Your task to perform on an android device: open app "Indeed Job Search" Image 0: 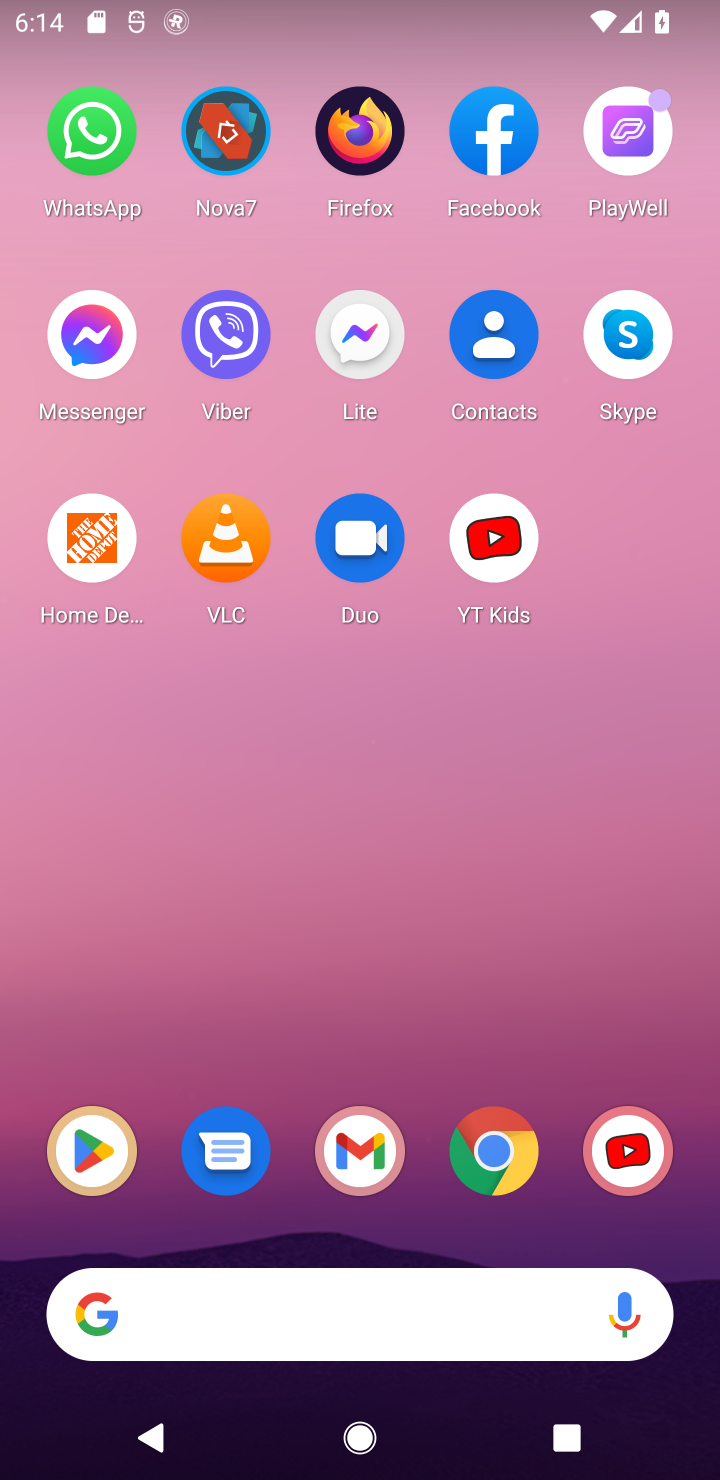
Step 0: press home button
Your task to perform on an android device: open app "Indeed Job Search" Image 1: 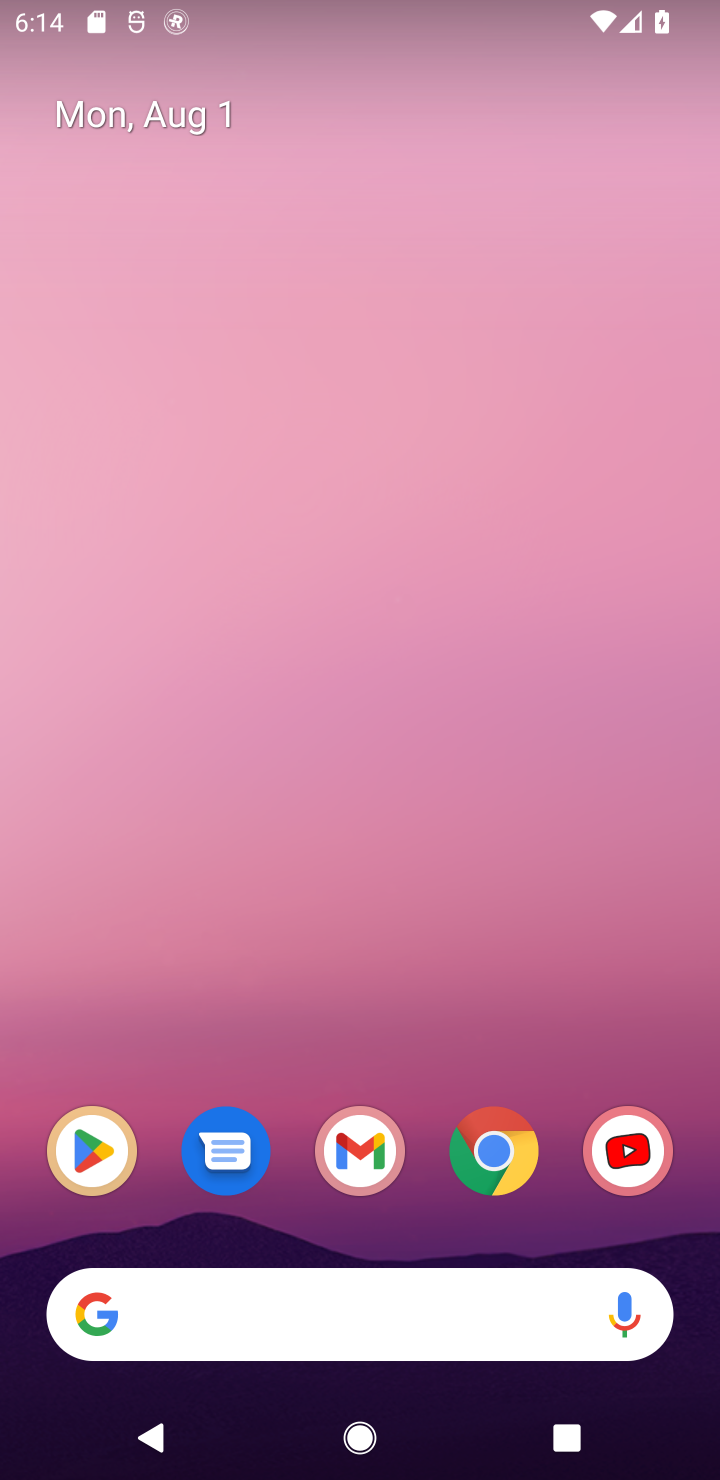
Step 1: click (71, 1166)
Your task to perform on an android device: open app "Indeed Job Search" Image 2: 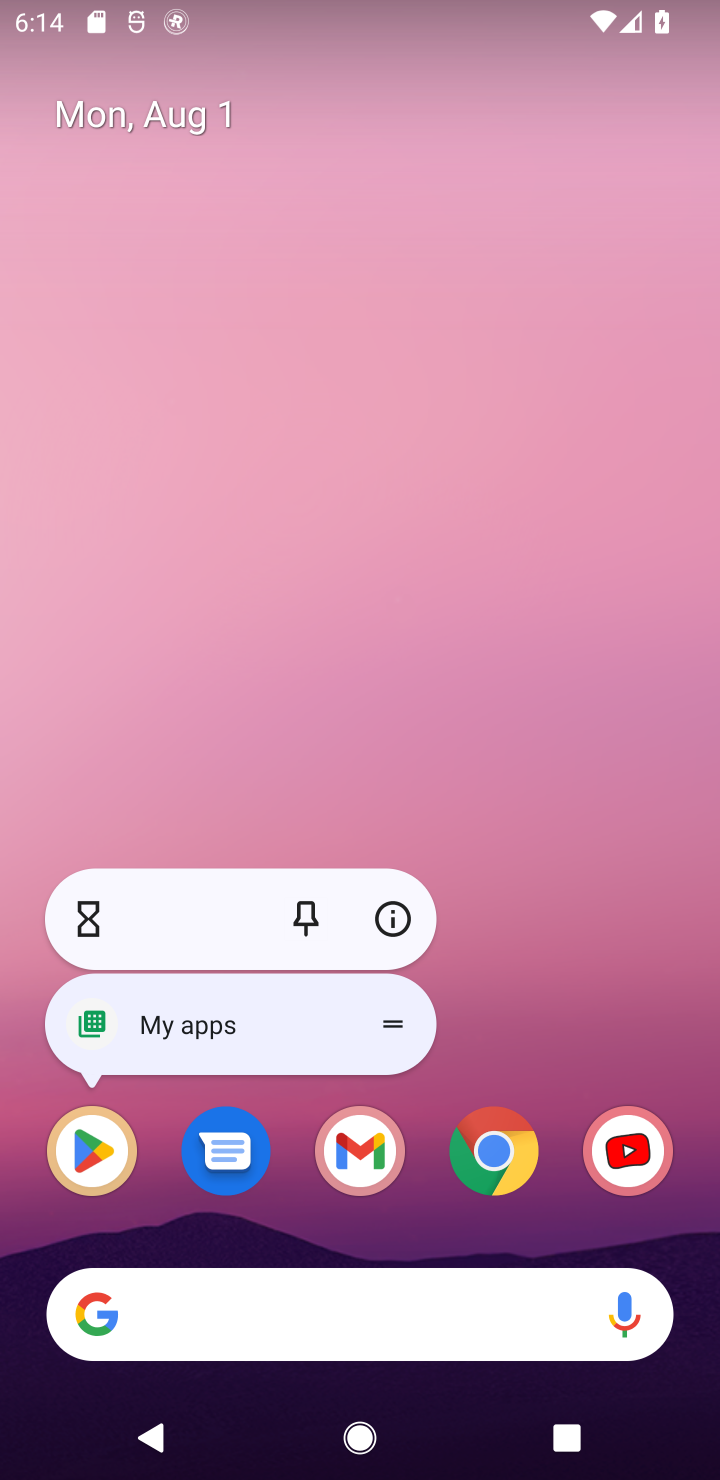
Step 2: click (71, 1162)
Your task to perform on an android device: open app "Indeed Job Search" Image 3: 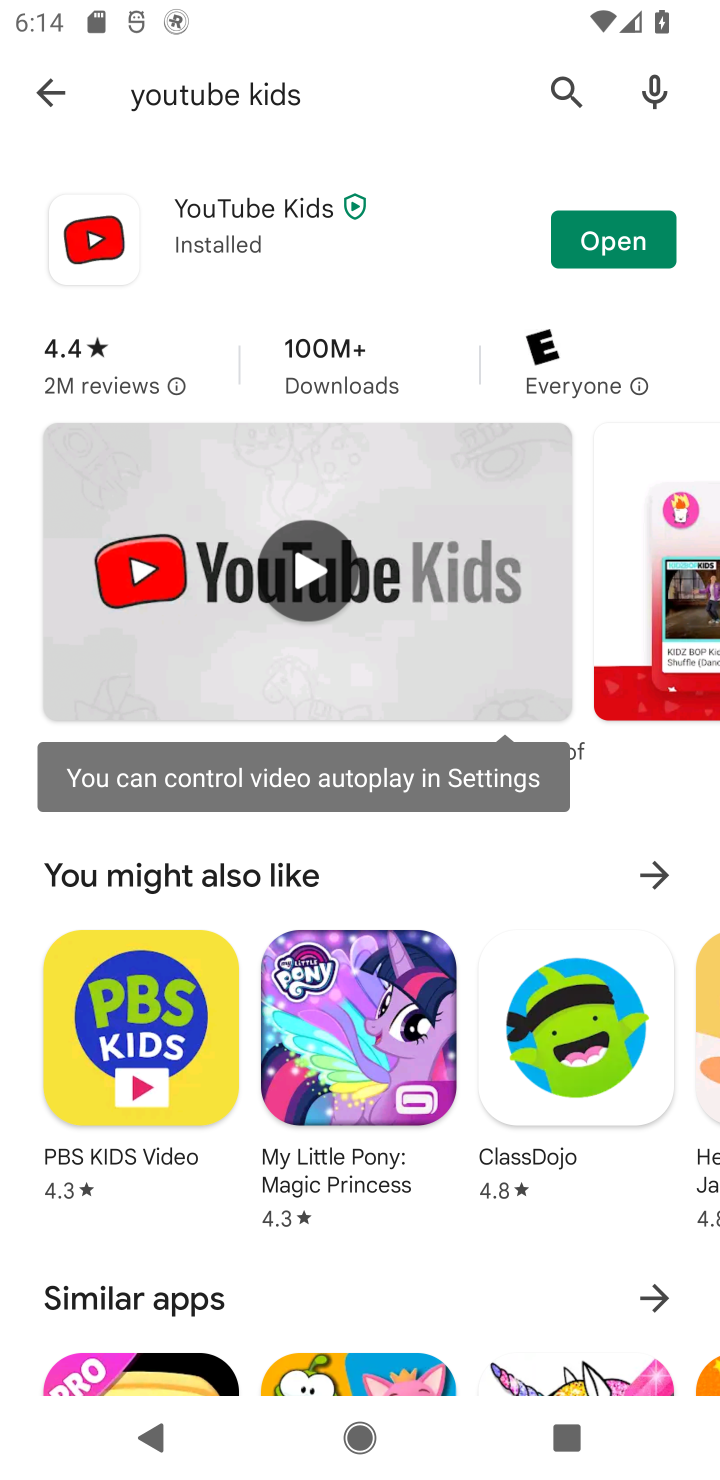
Step 3: click (563, 90)
Your task to perform on an android device: open app "Indeed Job Search" Image 4: 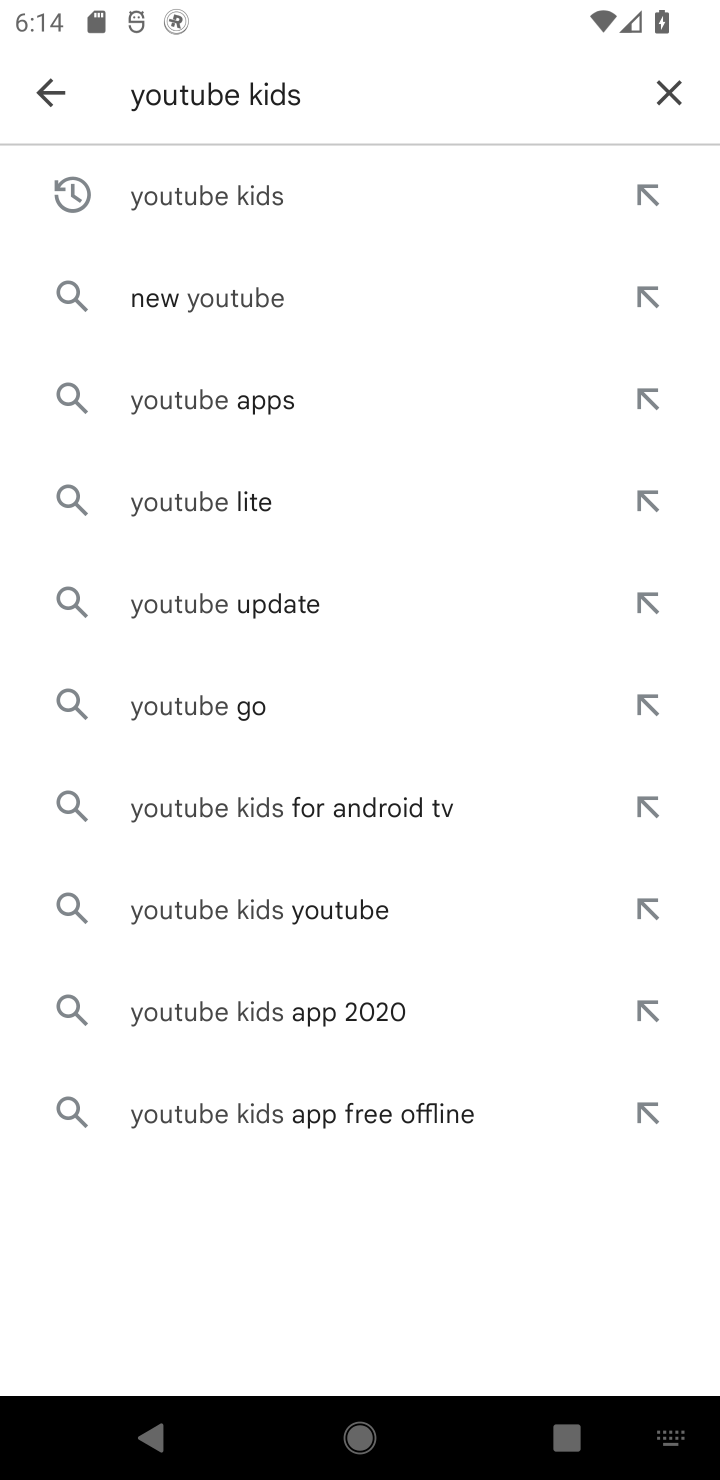
Step 4: click (659, 110)
Your task to perform on an android device: open app "Indeed Job Search" Image 5: 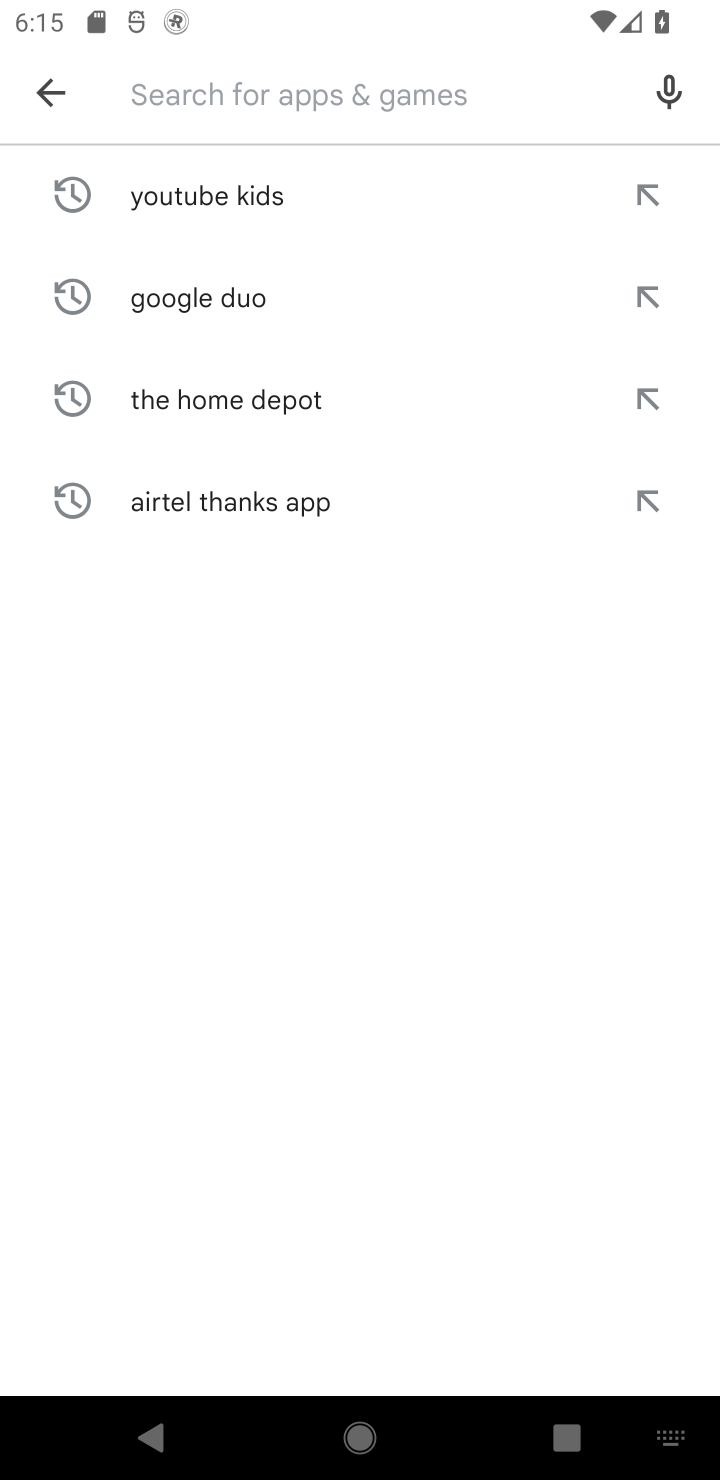
Step 5: type "Indeed Job Search"
Your task to perform on an android device: open app "Indeed Job Search" Image 6: 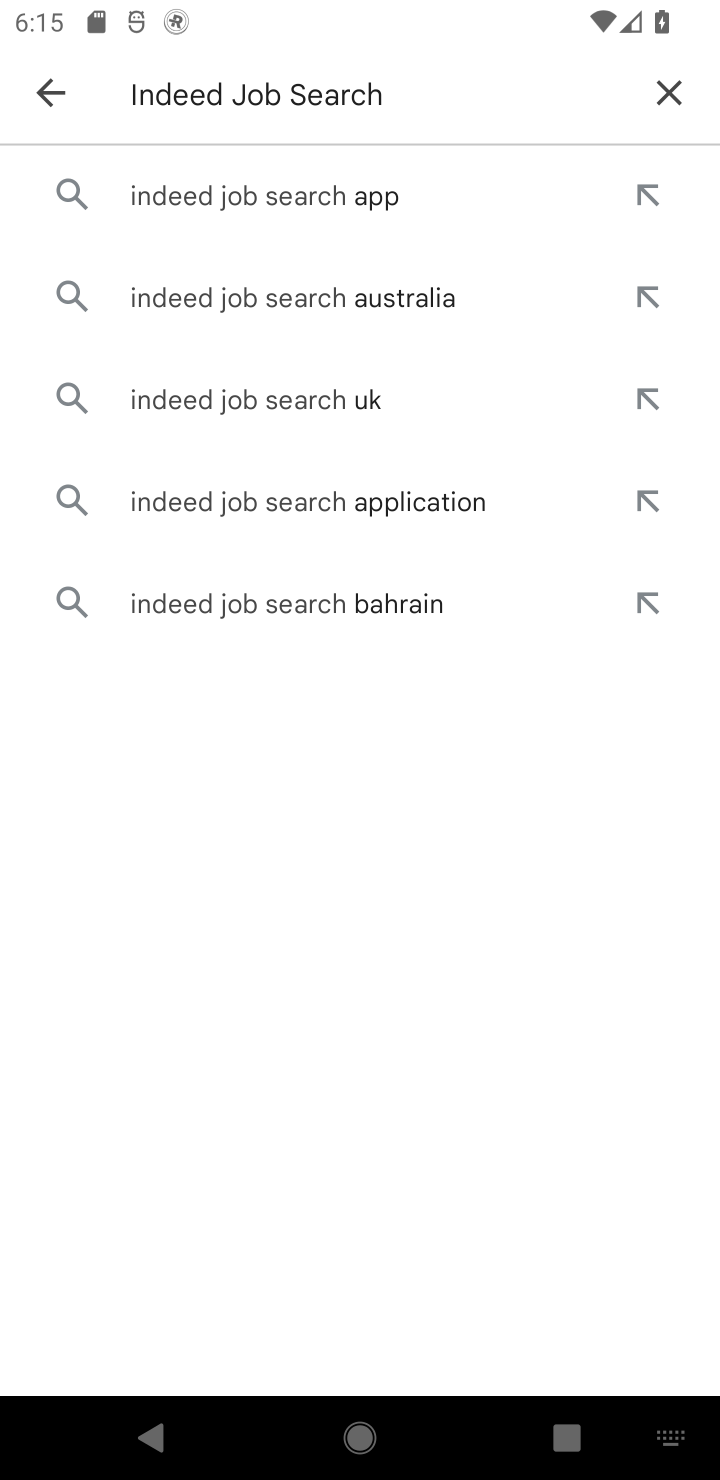
Step 6: click (216, 219)
Your task to perform on an android device: open app "Indeed Job Search" Image 7: 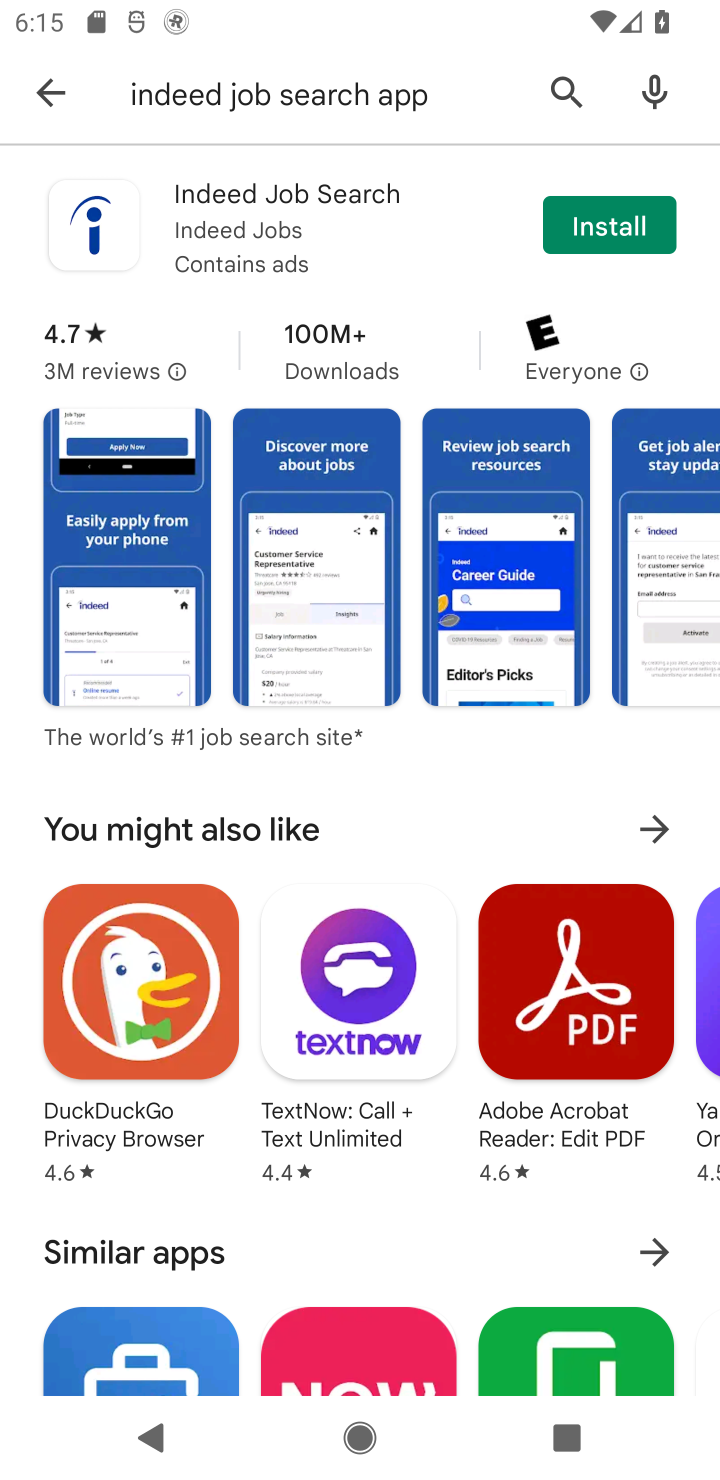
Step 7: task complete